Your task to perform on an android device: Go to calendar. Show me events next week Image 0: 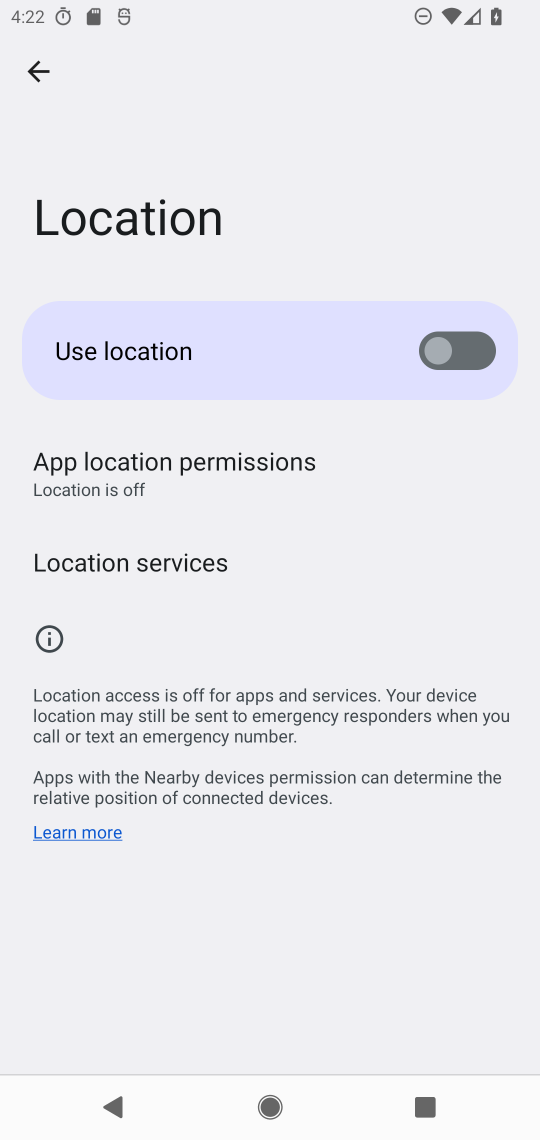
Step 0: click (53, 86)
Your task to perform on an android device: Go to calendar. Show me events next week Image 1: 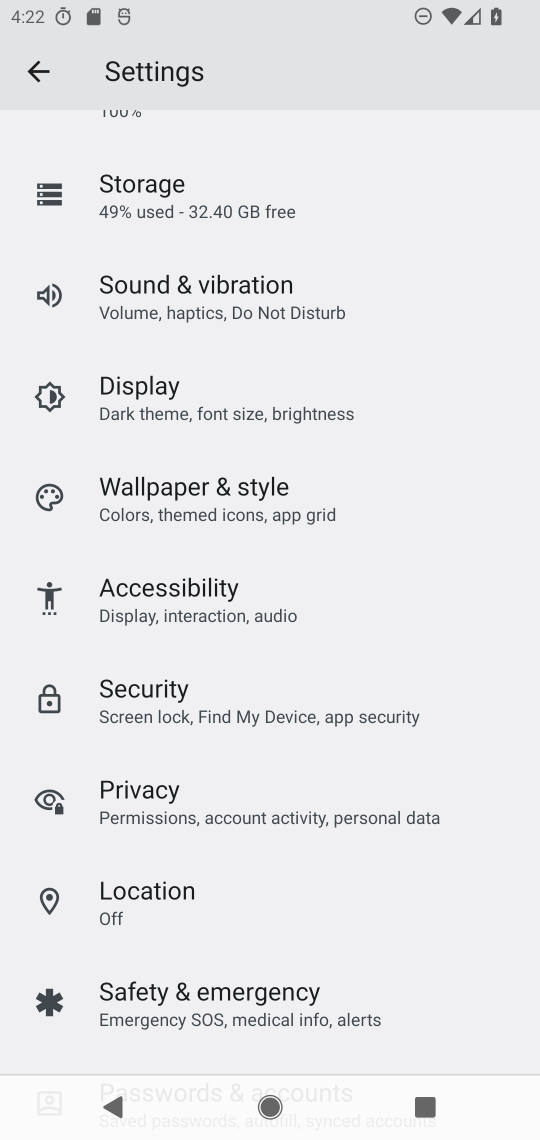
Step 1: press home button
Your task to perform on an android device: Go to calendar. Show me events next week Image 2: 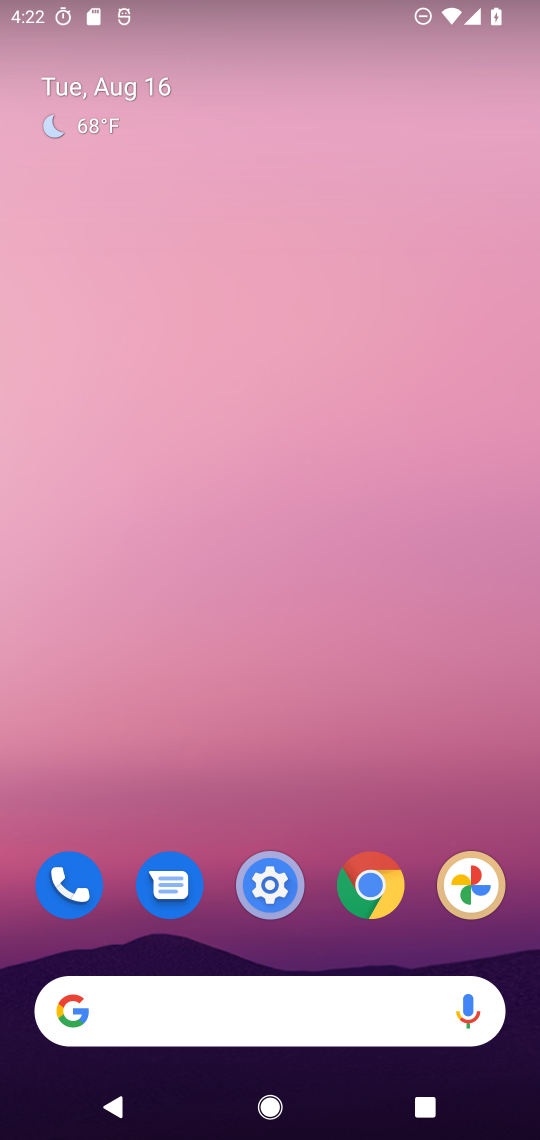
Step 2: drag from (298, 954) to (312, 260)
Your task to perform on an android device: Go to calendar. Show me events next week Image 3: 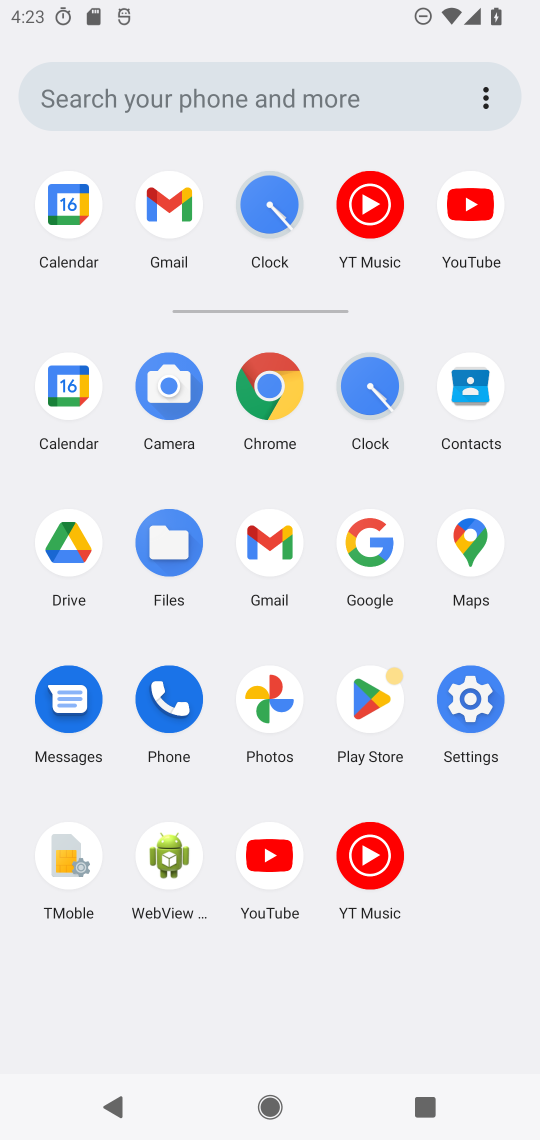
Step 3: click (71, 381)
Your task to perform on an android device: Go to calendar. Show me events next week Image 4: 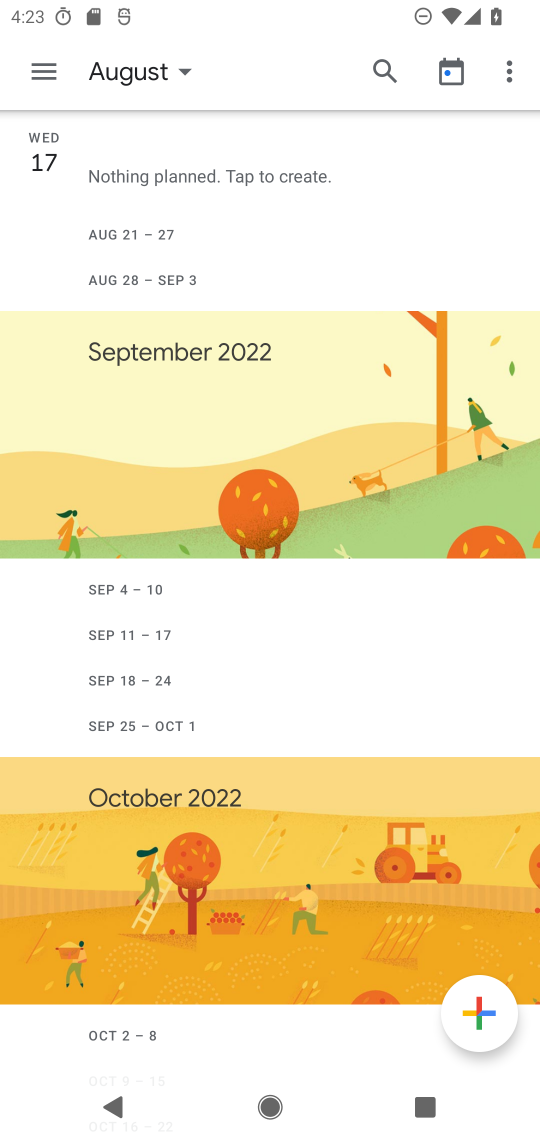
Step 4: click (50, 72)
Your task to perform on an android device: Go to calendar. Show me events next week Image 5: 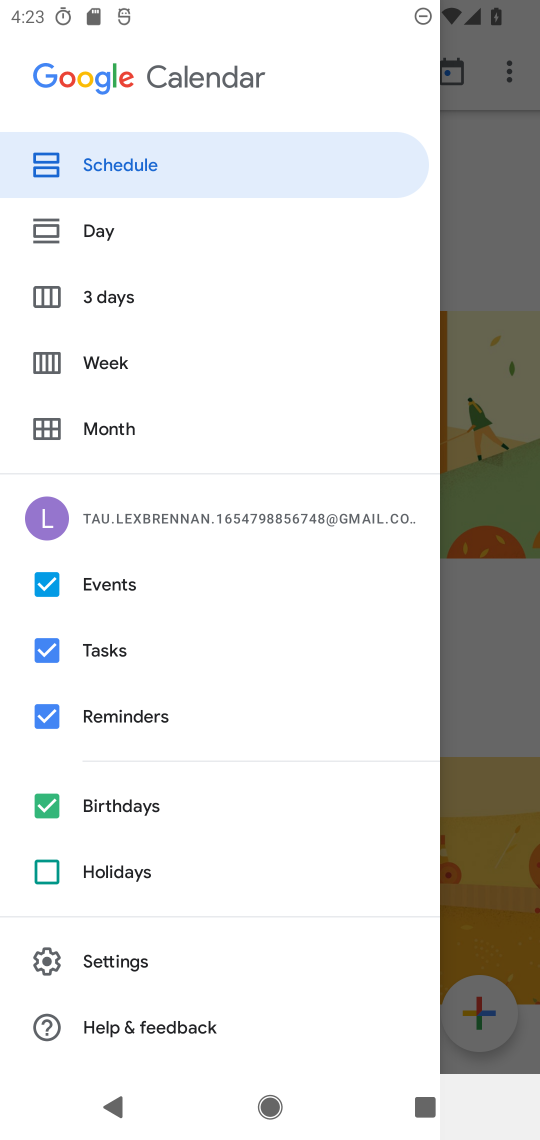
Step 5: click (113, 360)
Your task to perform on an android device: Go to calendar. Show me events next week Image 6: 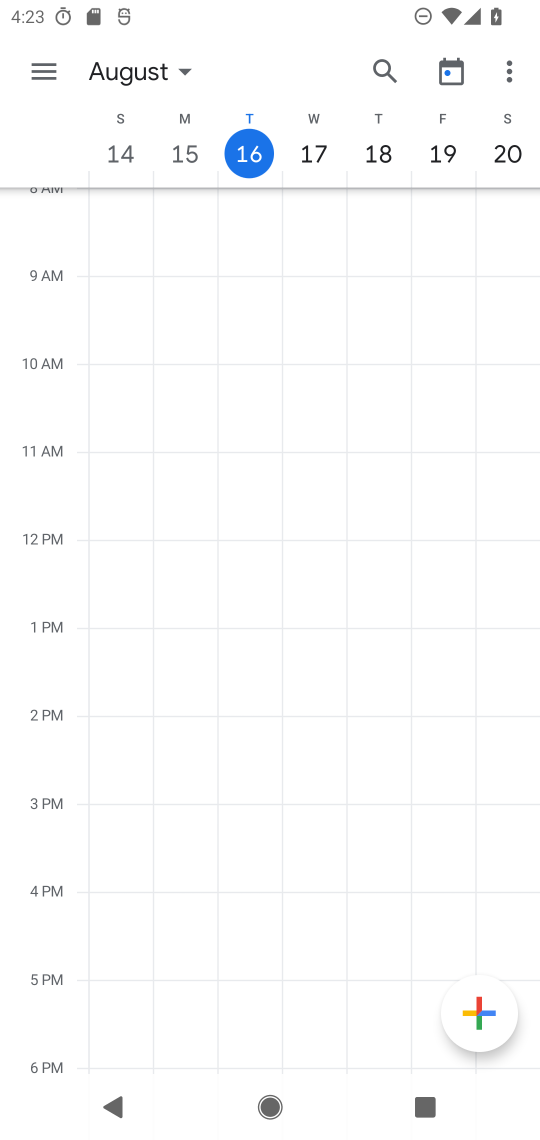
Step 6: task complete